Your task to perform on an android device: Open Yahoo.com Image 0: 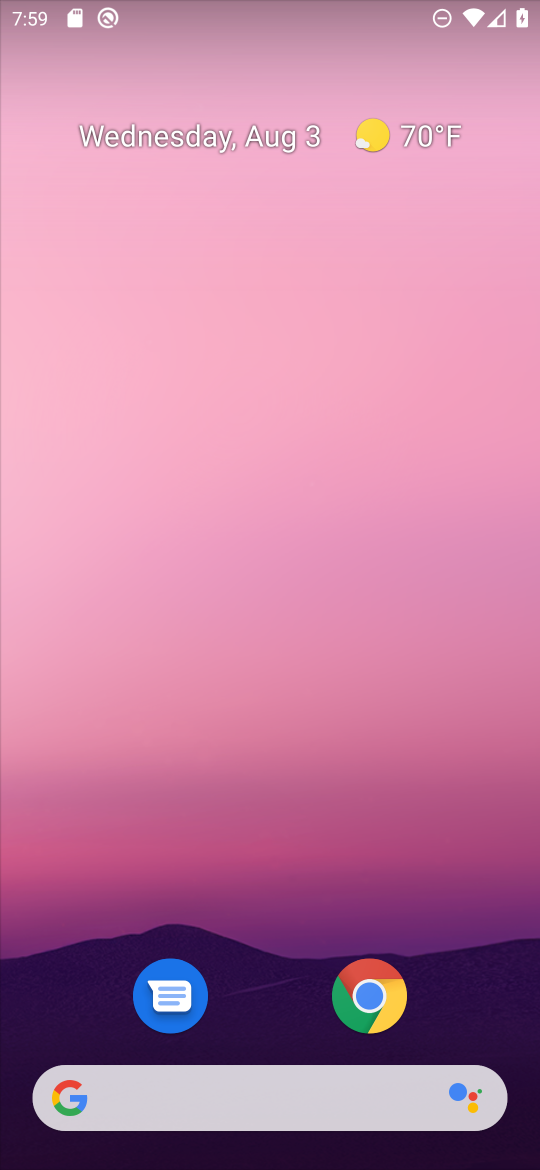
Step 0: click (305, 1115)
Your task to perform on an android device: Open Yahoo.com Image 1: 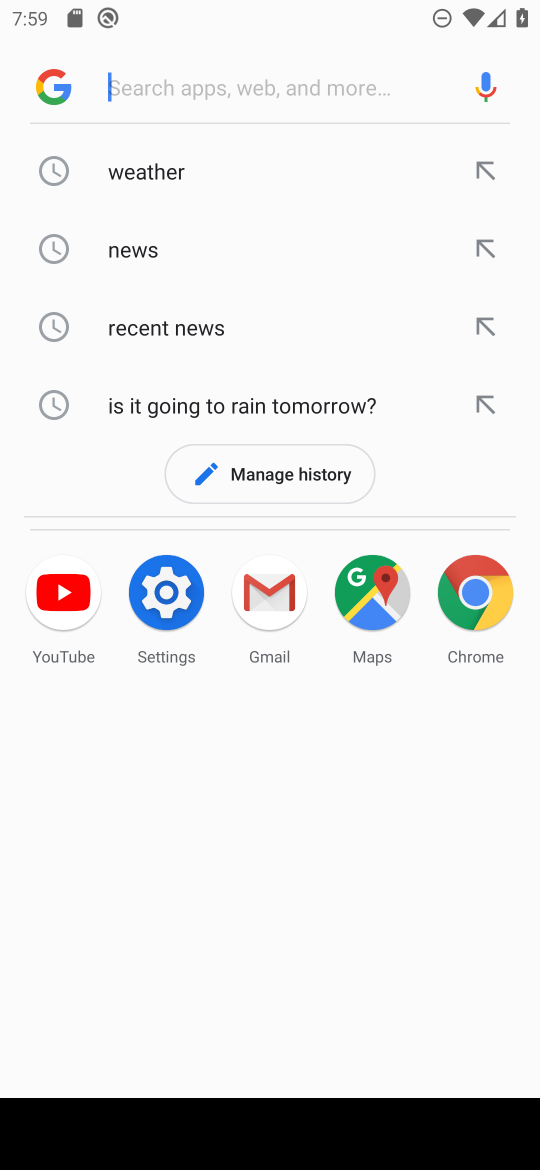
Step 1: type "yahoo.com"
Your task to perform on an android device: Open Yahoo.com Image 2: 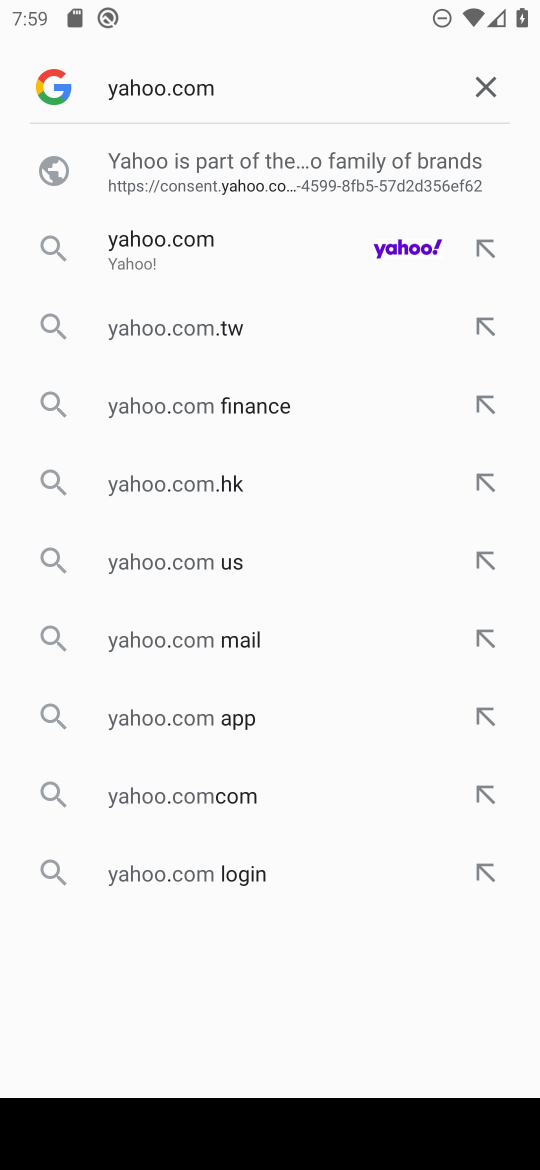
Step 2: click (400, 243)
Your task to perform on an android device: Open Yahoo.com Image 3: 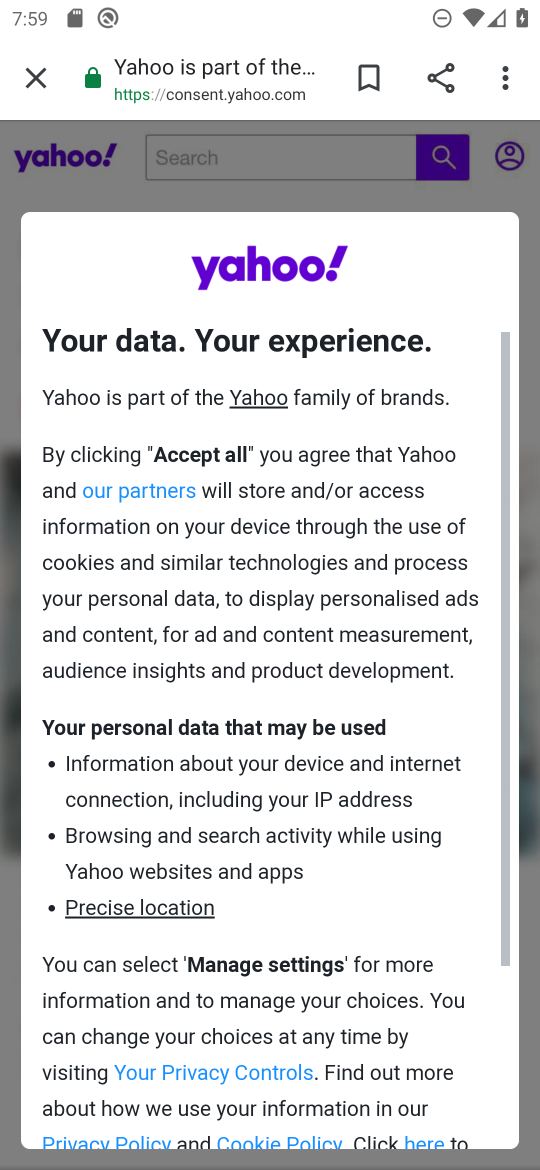
Step 3: drag from (371, 903) to (368, 236)
Your task to perform on an android device: Open Yahoo.com Image 4: 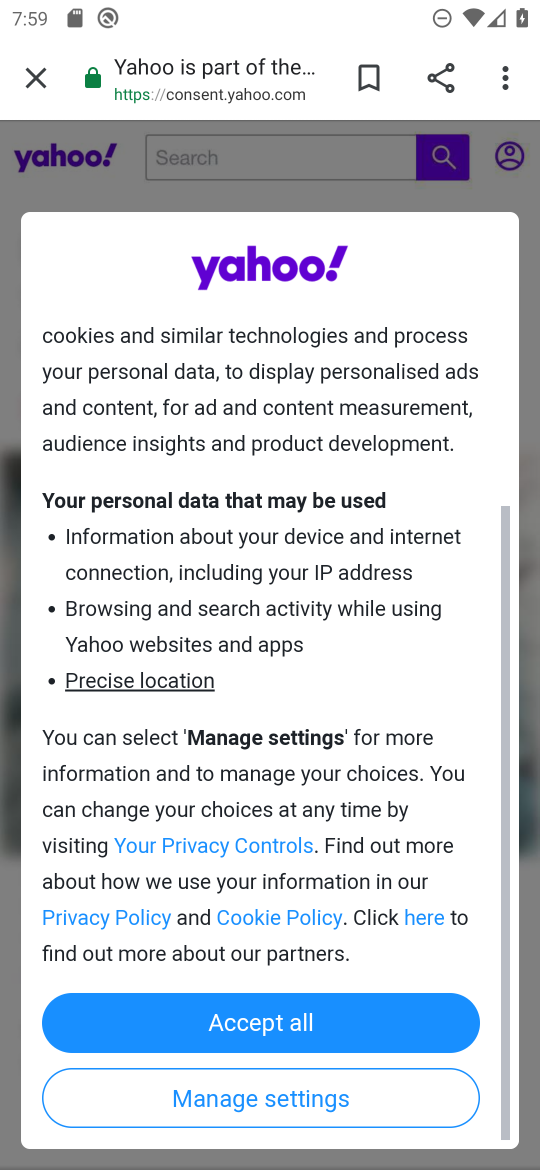
Step 4: click (362, 1026)
Your task to perform on an android device: Open Yahoo.com Image 5: 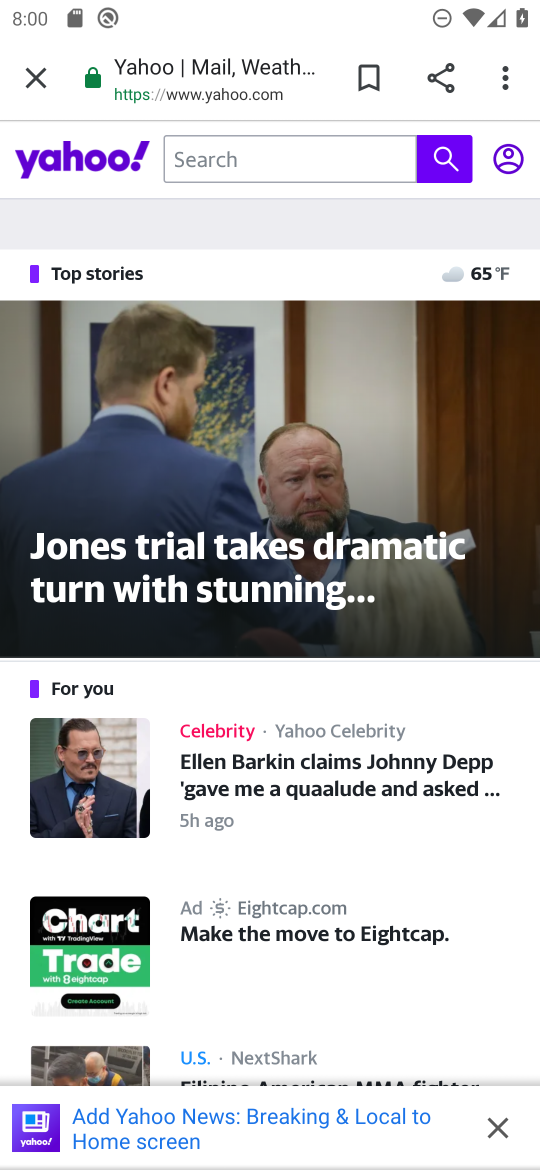
Step 5: task complete